Your task to perform on an android device: Open Amazon Image 0: 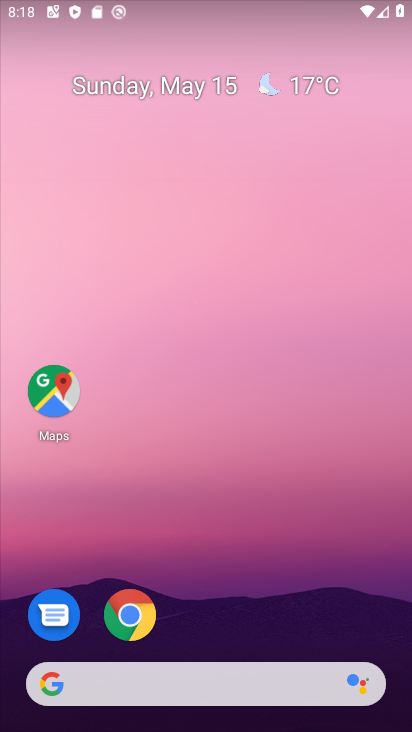
Step 0: drag from (289, 647) to (270, 400)
Your task to perform on an android device: Open Amazon Image 1: 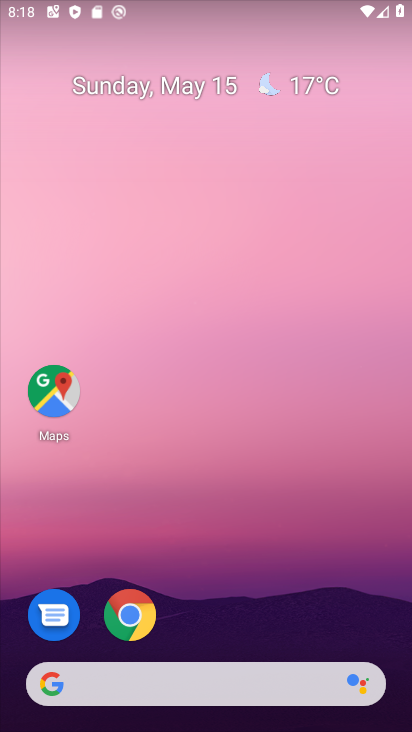
Step 1: click (130, 608)
Your task to perform on an android device: Open Amazon Image 2: 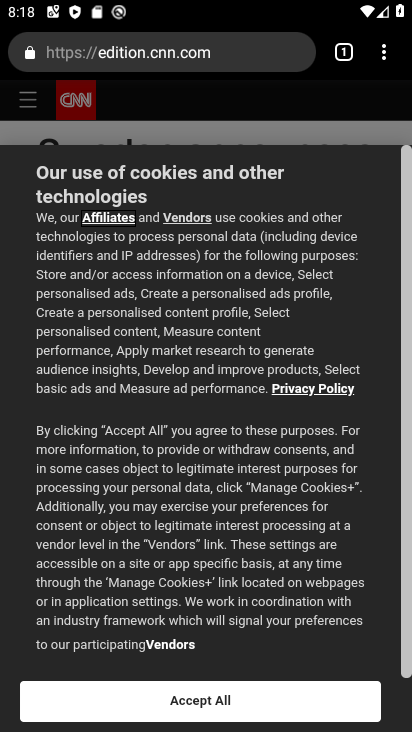
Step 2: click (353, 41)
Your task to perform on an android device: Open Amazon Image 3: 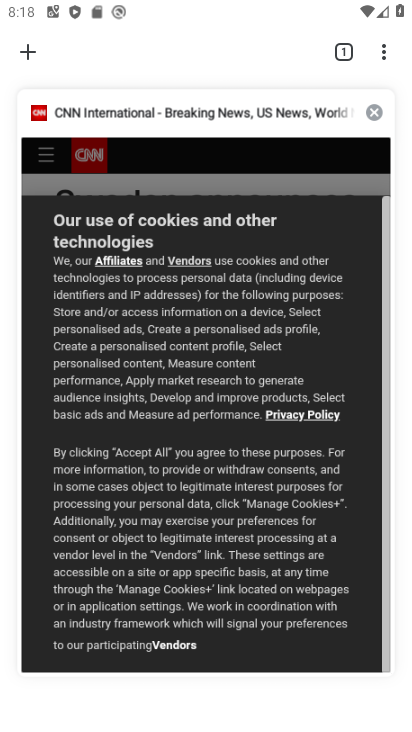
Step 3: click (377, 110)
Your task to perform on an android device: Open Amazon Image 4: 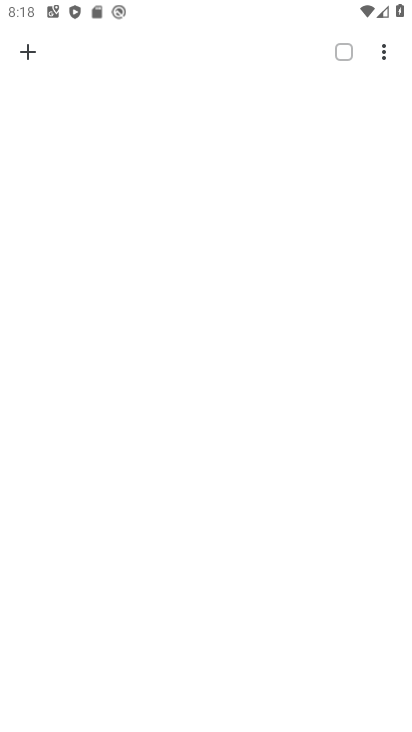
Step 4: click (24, 48)
Your task to perform on an android device: Open Amazon Image 5: 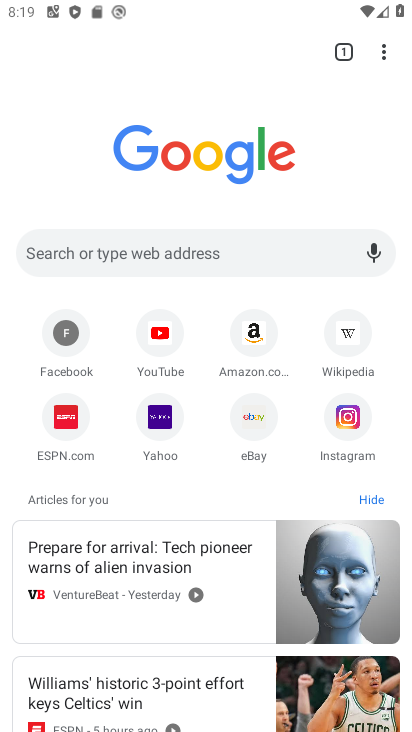
Step 5: click (258, 328)
Your task to perform on an android device: Open Amazon Image 6: 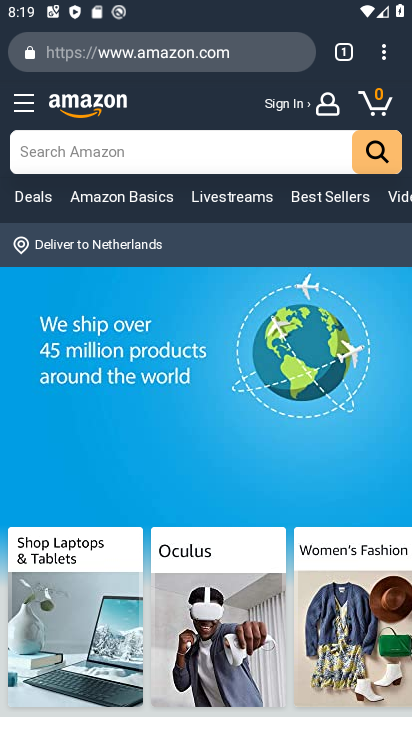
Step 6: task complete